Your task to perform on an android device: Open Maps and search for coffee Image 0: 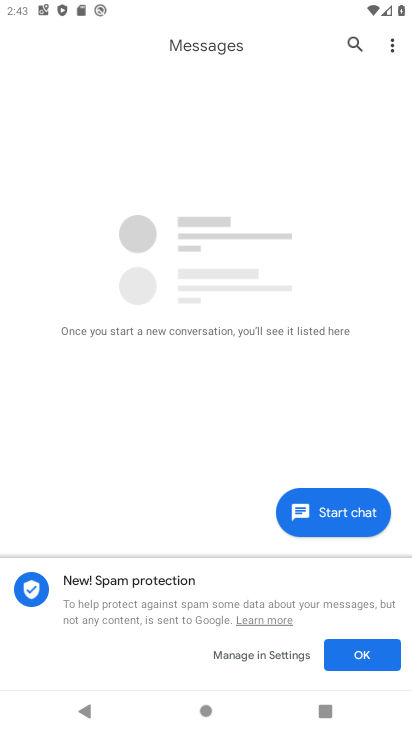
Step 0: press home button
Your task to perform on an android device: Open Maps and search for coffee Image 1: 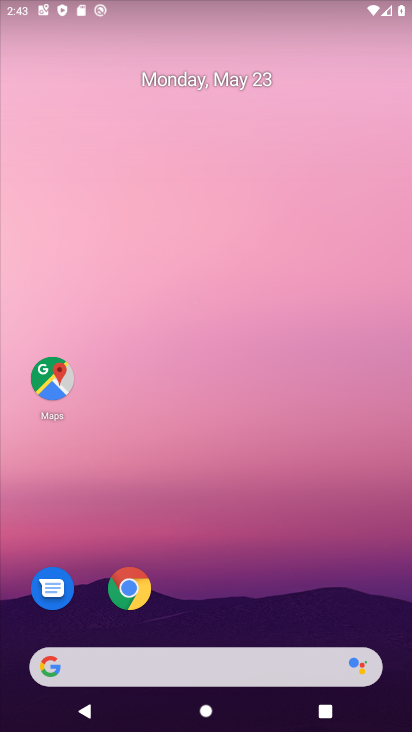
Step 1: drag from (223, 720) to (226, 228)
Your task to perform on an android device: Open Maps and search for coffee Image 2: 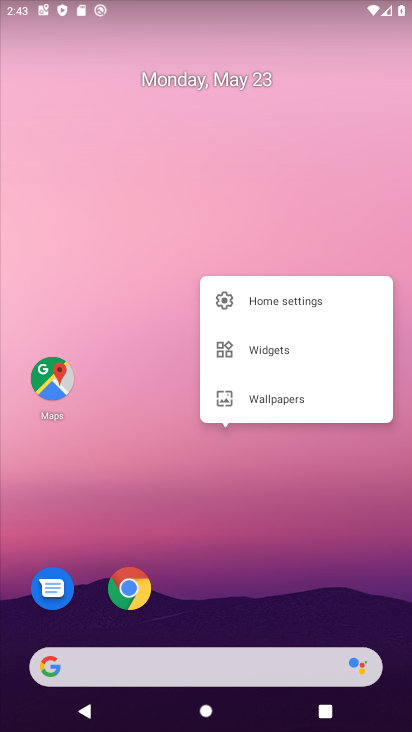
Step 2: click (189, 466)
Your task to perform on an android device: Open Maps and search for coffee Image 3: 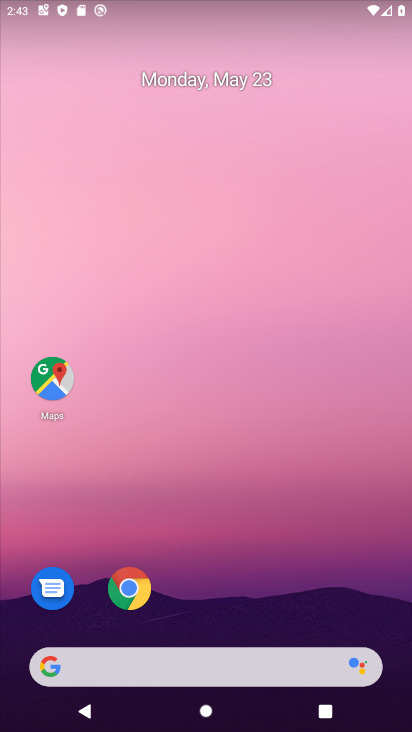
Step 3: drag from (222, 725) to (191, 147)
Your task to perform on an android device: Open Maps and search for coffee Image 4: 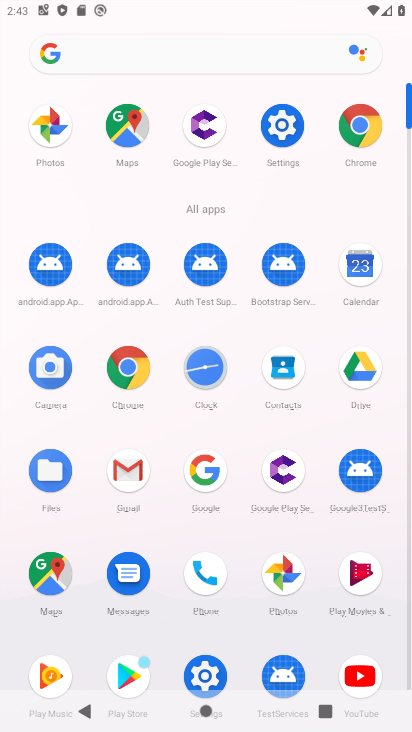
Step 4: click (45, 571)
Your task to perform on an android device: Open Maps and search for coffee Image 5: 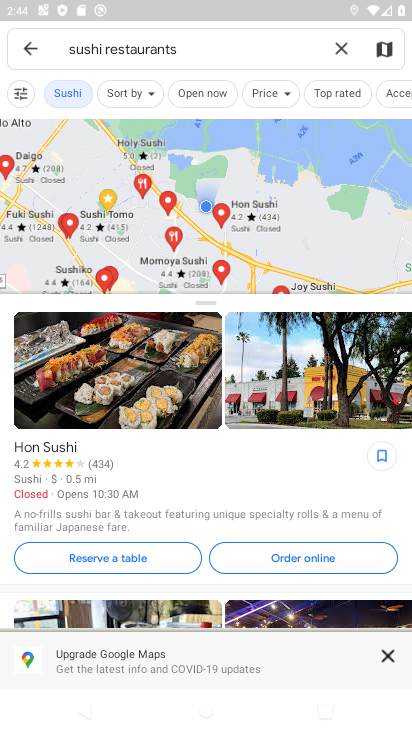
Step 5: click (343, 44)
Your task to perform on an android device: Open Maps and search for coffee Image 6: 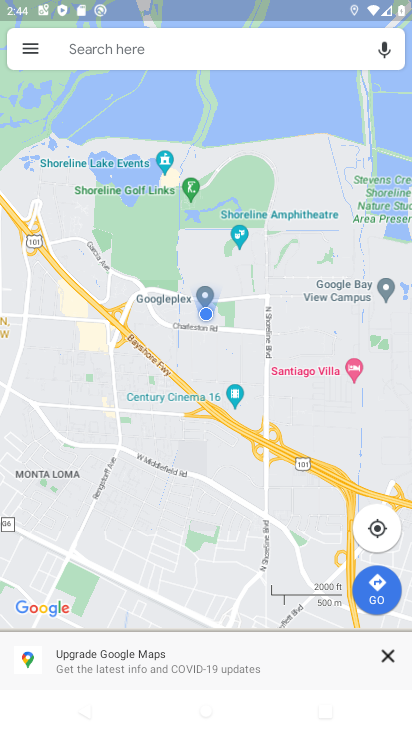
Step 6: click (155, 47)
Your task to perform on an android device: Open Maps and search for coffee Image 7: 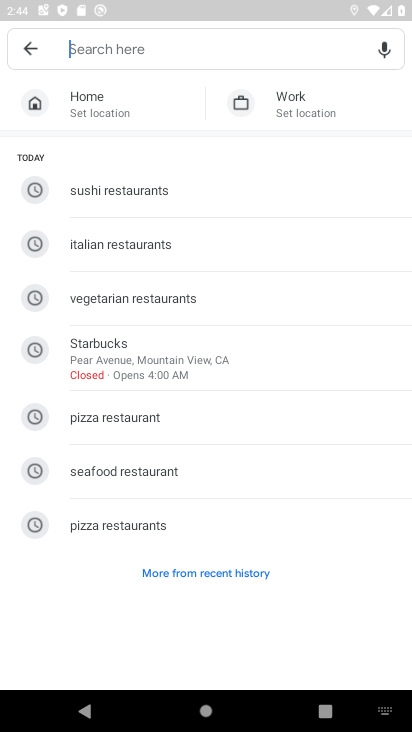
Step 7: type "coffee"
Your task to perform on an android device: Open Maps and search for coffee Image 8: 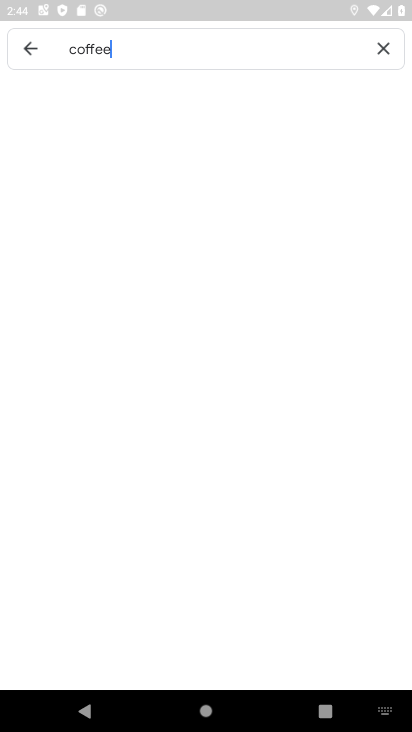
Step 8: type ""
Your task to perform on an android device: Open Maps and search for coffee Image 9: 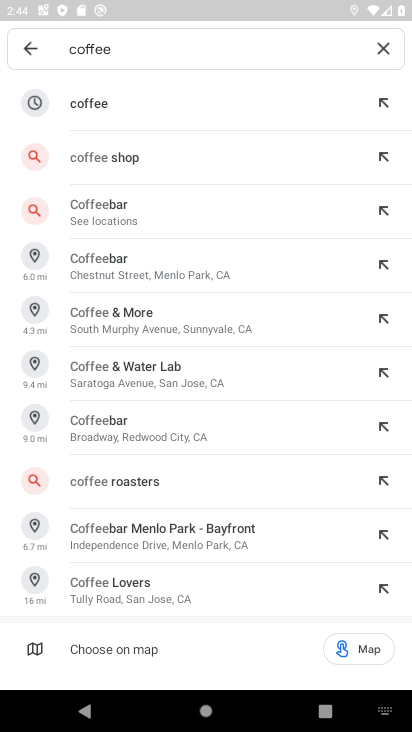
Step 9: click (99, 103)
Your task to perform on an android device: Open Maps and search for coffee Image 10: 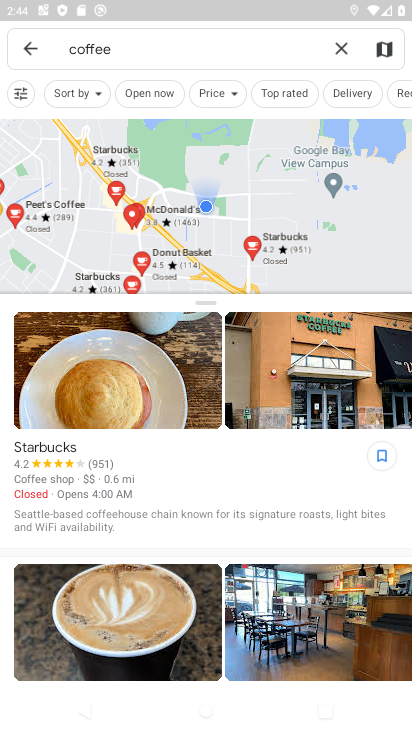
Step 10: task complete